Your task to perform on an android device: turn off notifications settings in the gmail app Image 0: 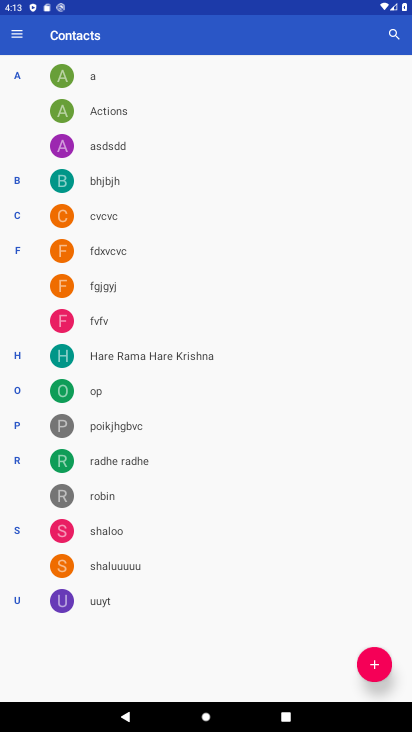
Step 0: press back button
Your task to perform on an android device: turn off notifications settings in the gmail app Image 1: 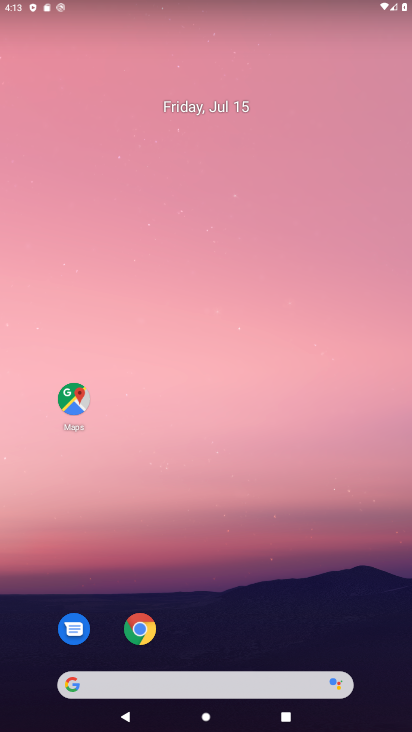
Step 1: drag from (225, 598) to (156, 188)
Your task to perform on an android device: turn off notifications settings in the gmail app Image 2: 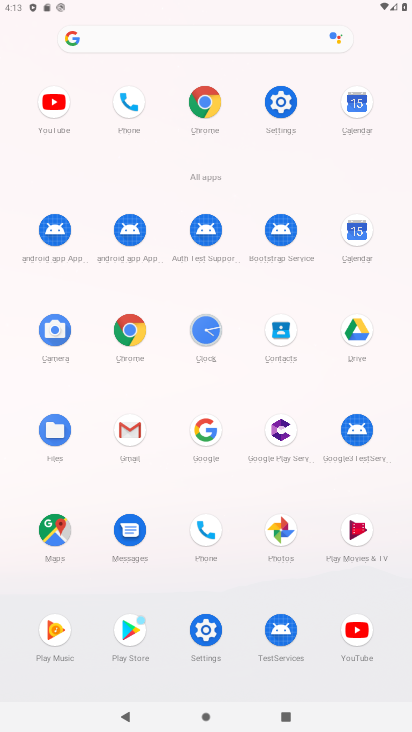
Step 2: click (128, 435)
Your task to perform on an android device: turn off notifications settings in the gmail app Image 3: 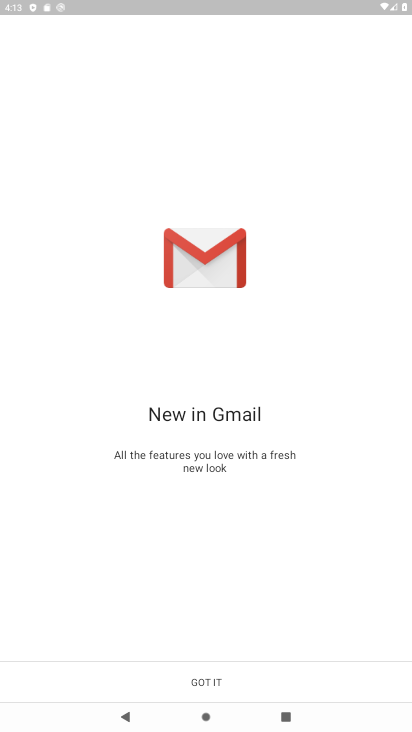
Step 3: click (209, 673)
Your task to perform on an android device: turn off notifications settings in the gmail app Image 4: 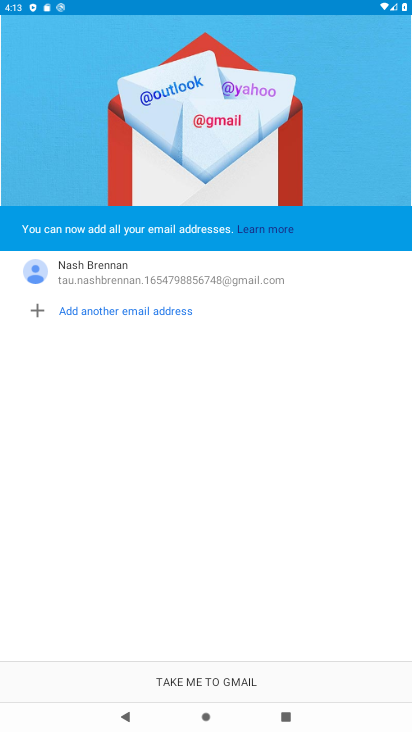
Step 4: click (209, 673)
Your task to perform on an android device: turn off notifications settings in the gmail app Image 5: 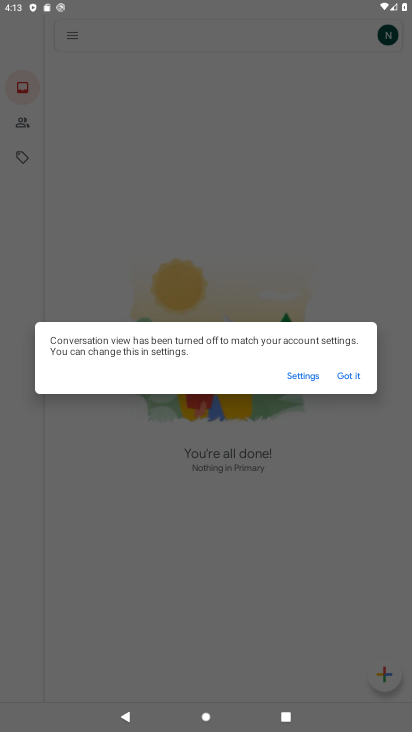
Step 5: click (352, 380)
Your task to perform on an android device: turn off notifications settings in the gmail app Image 6: 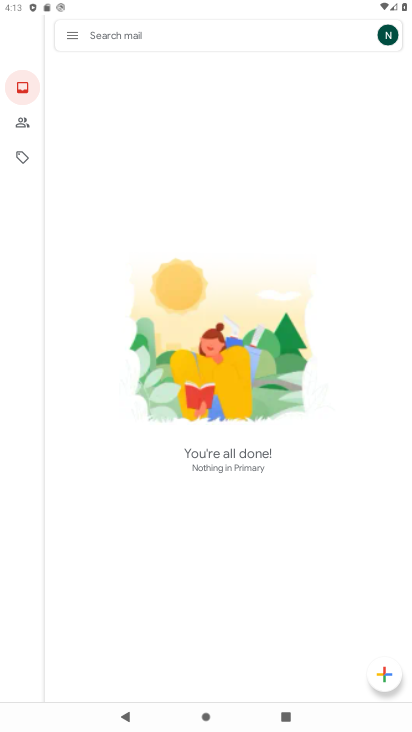
Step 6: click (73, 37)
Your task to perform on an android device: turn off notifications settings in the gmail app Image 7: 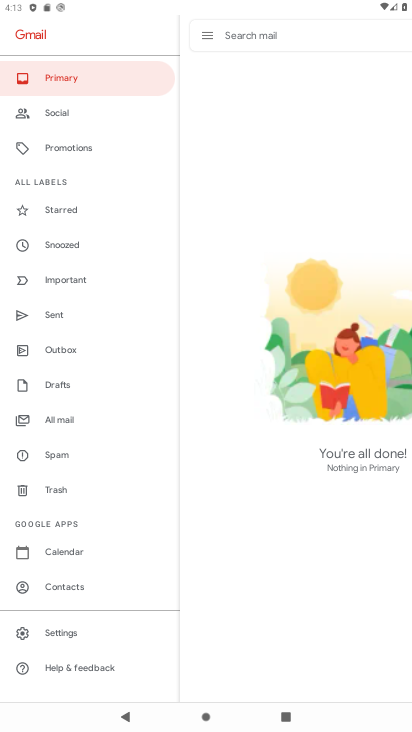
Step 7: click (58, 633)
Your task to perform on an android device: turn off notifications settings in the gmail app Image 8: 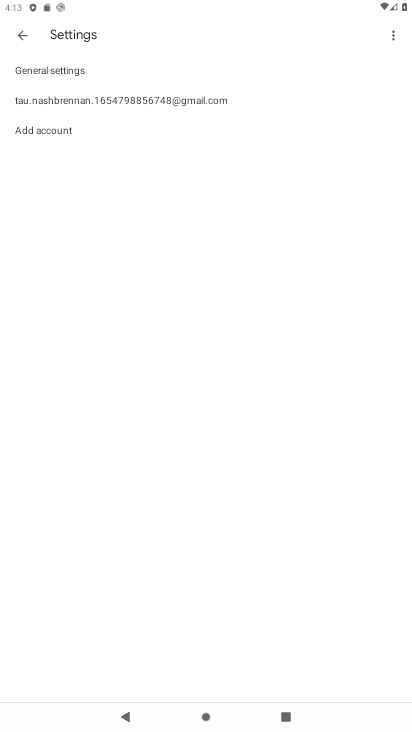
Step 8: click (186, 101)
Your task to perform on an android device: turn off notifications settings in the gmail app Image 9: 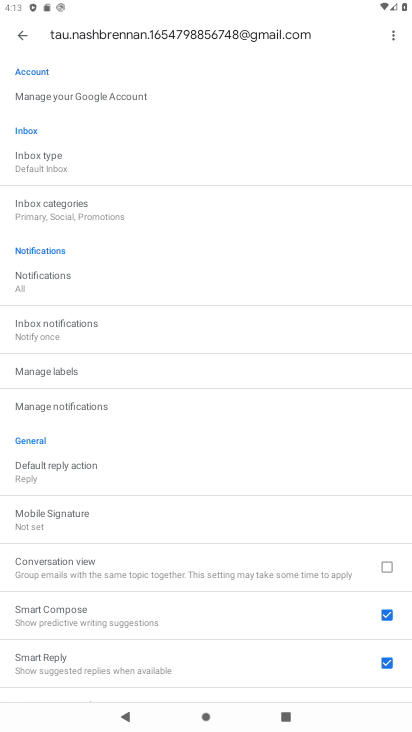
Step 9: click (38, 291)
Your task to perform on an android device: turn off notifications settings in the gmail app Image 10: 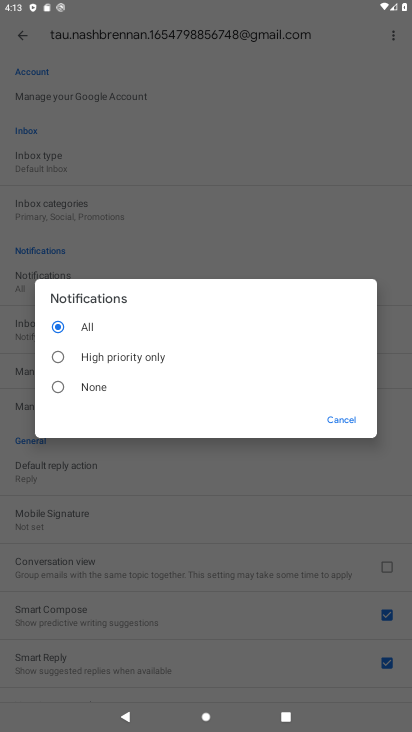
Step 10: click (65, 382)
Your task to perform on an android device: turn off notifications settings in the gmail app Image 11: 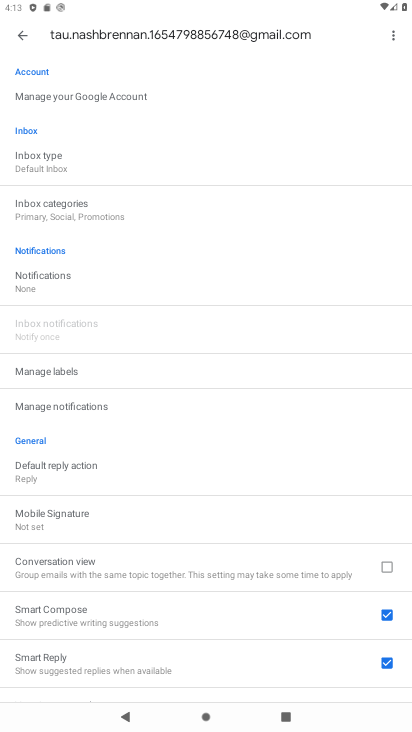
Step 11: task complete